Your task to perform on an android device: Go to Yahoo.com Image 0: 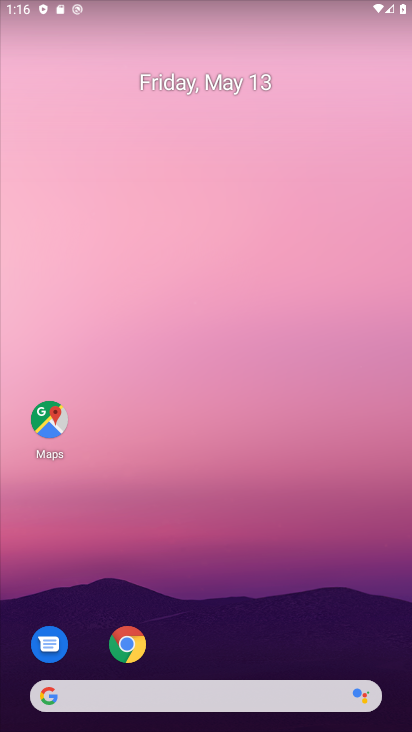
Step 0: click (128, 644)
Your task to perform on an android device: Go to Yahoo.com Image 1: 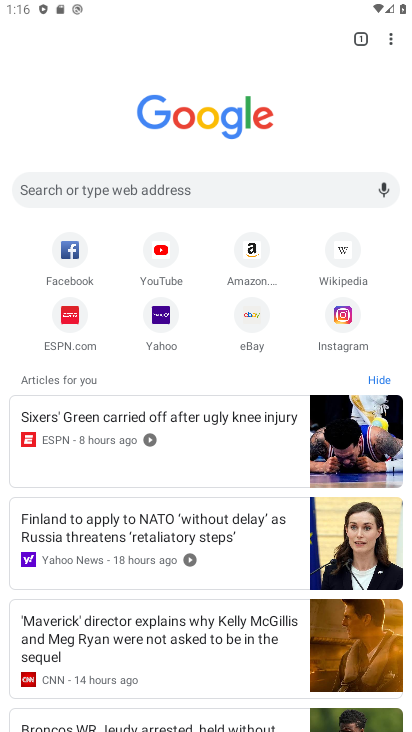
Step 1: click (151, 336)
Your task to perform on an android device: Go to Yahoo.com Image 2: 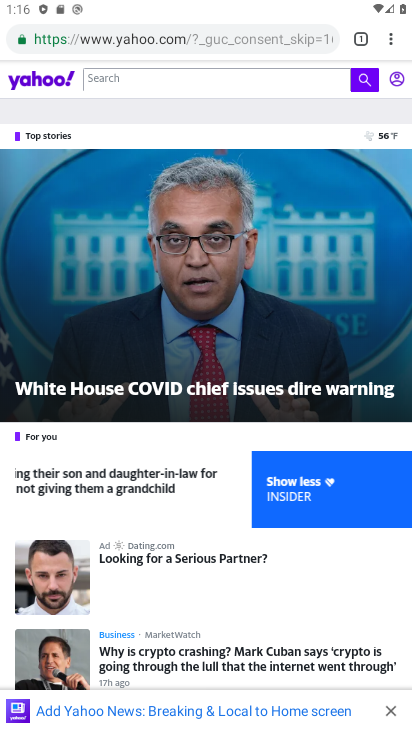
Step 2: task complete